Your task to perform on an android device: When is my next meeting? Image 0: 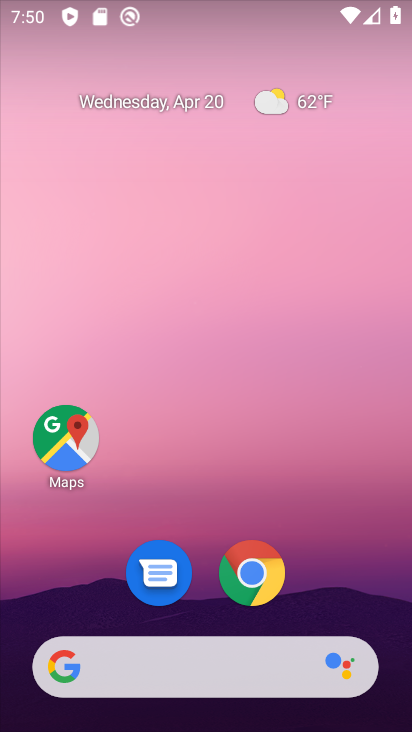
Step 0: drag from (307, 616) to (343, 41)
Your task to perform on an android device: When is my next meeting? Image 1: 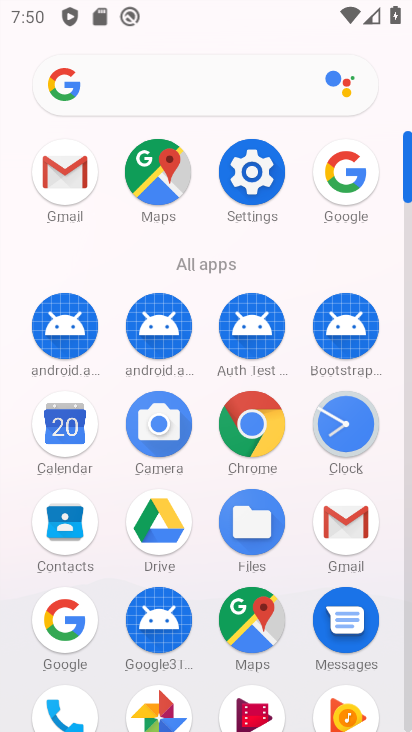
Step 1: click (76, 429)
Your task to perform on an android device: When is my next meeting? Image 2: 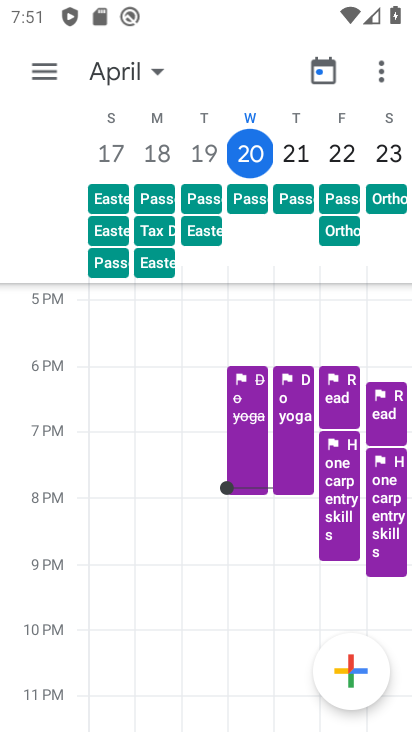
Step 2: click (302, 156)
Your task to perform on an android device: When is my next meeting? Image 3: 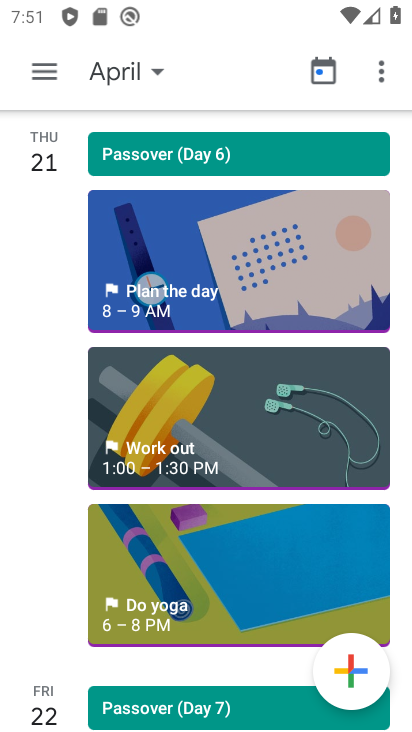
Step 3: task complete